Your task to perform on an android device: Clear the shopping cart on newegg.com. Image 0: 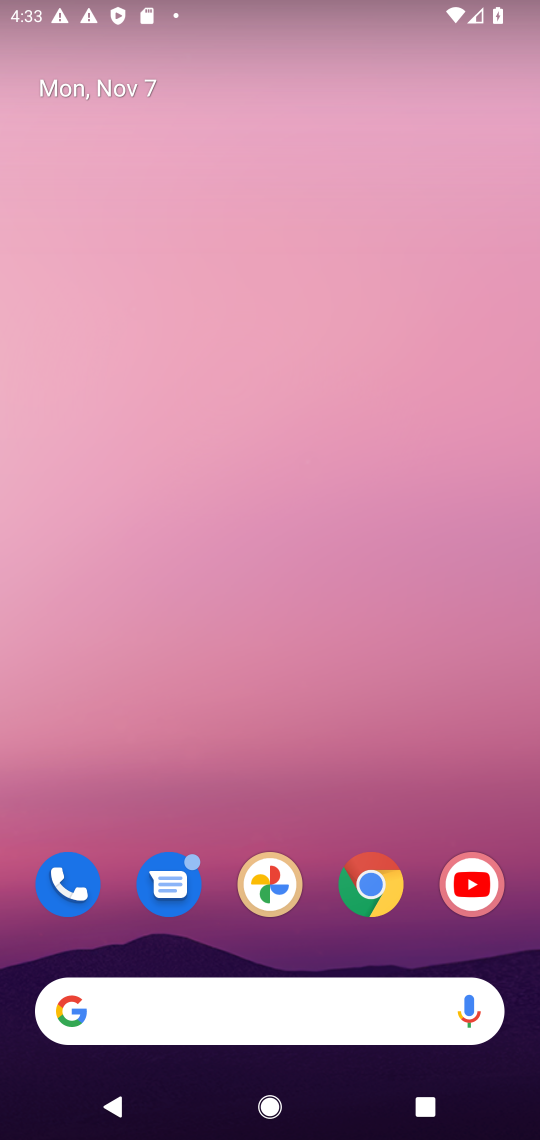
Step 0: drag from (320, 910) to (352, 167)
Your task to perform on an android device: Clear the shopping cart on newegg.com. Image 1: 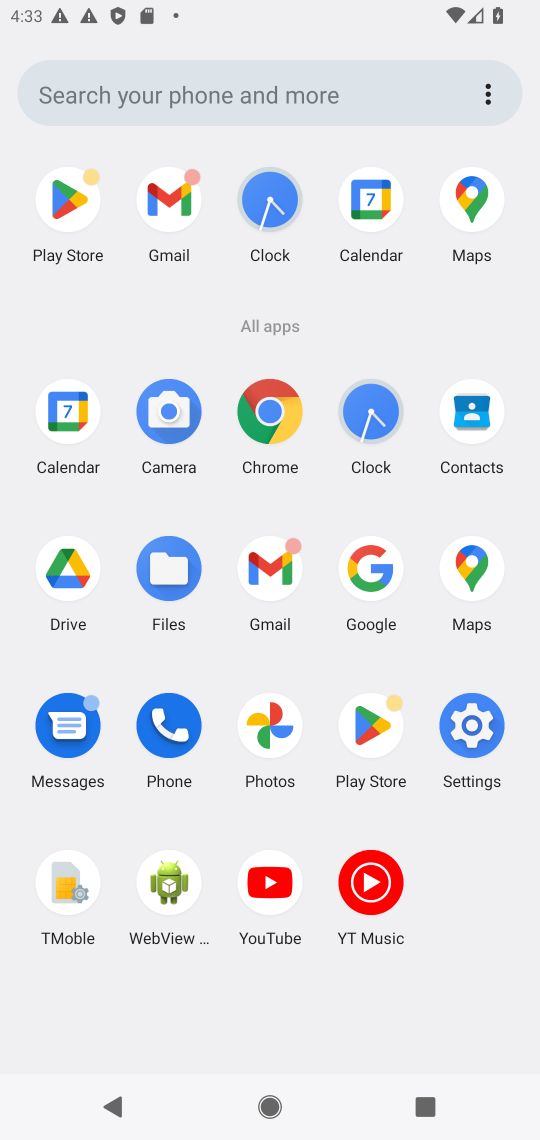
Step 1: click (267, 409)
Your task to perform on an android device: Clear the shopping cart on newegg.com. Image 2: 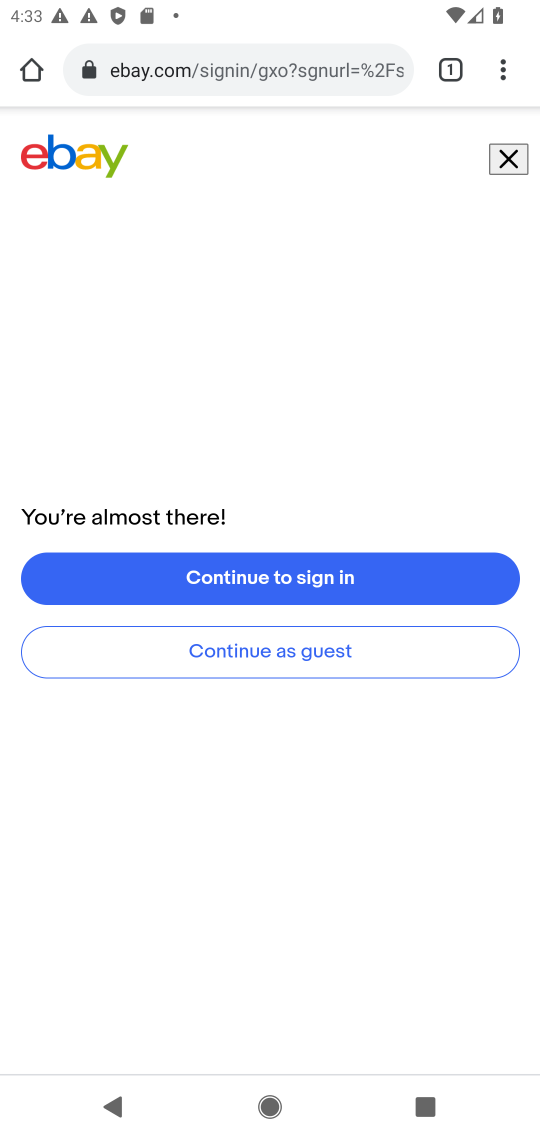
Step 2: click (274, 76)
Your task to perform on an android device: Clear the shopping cart on newegg.com. Image 3: 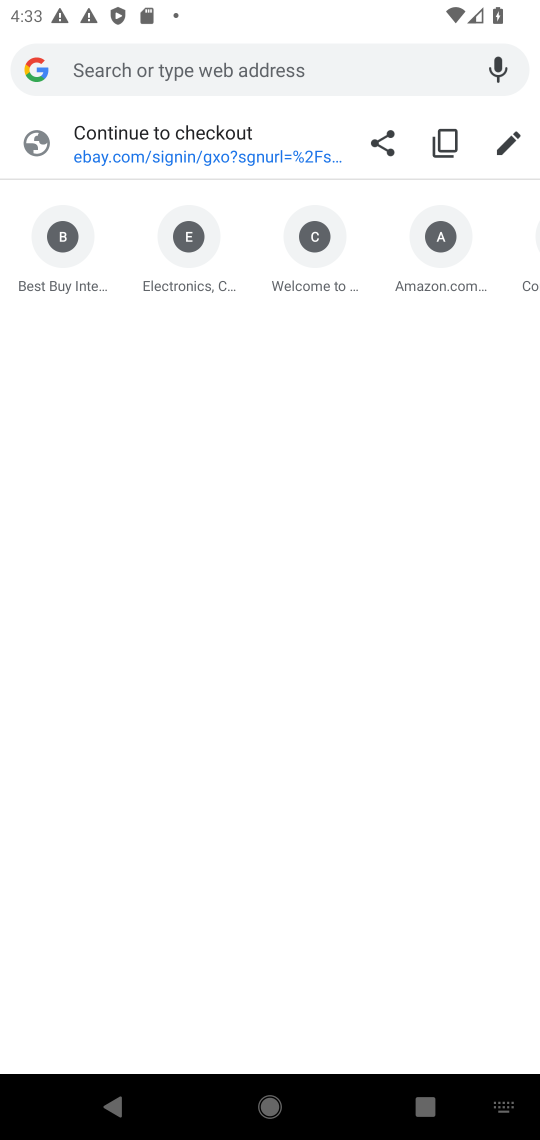
Step 3: type "newegg.com"
Your task to perform on an android device: Clear the shopping cart on newegg.com. Image 4: 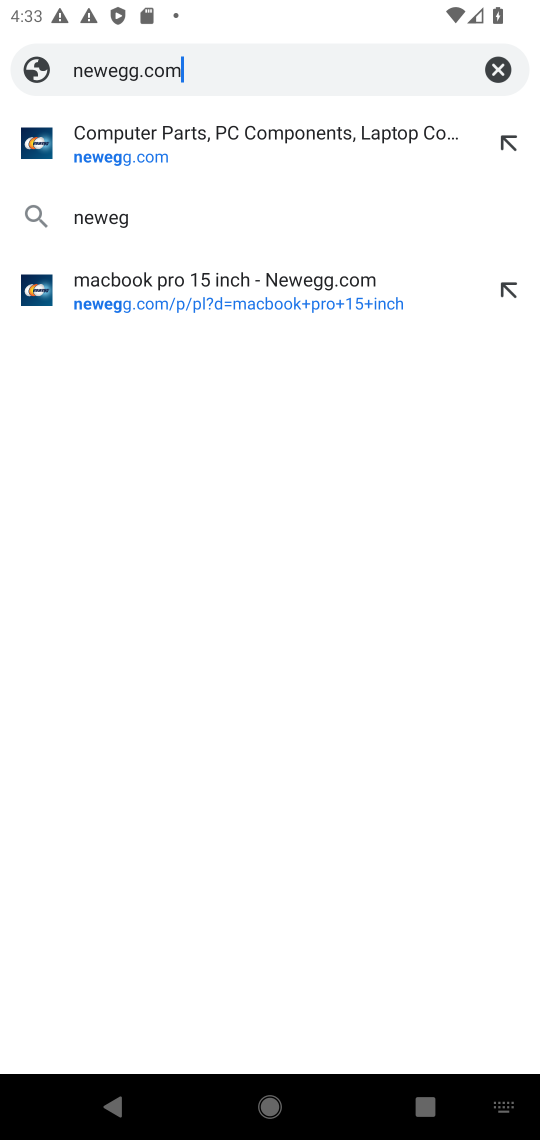
Step 4: press enter
Your task to perform on an android device: Clear the shopping cart on newegg.com. Image 5: 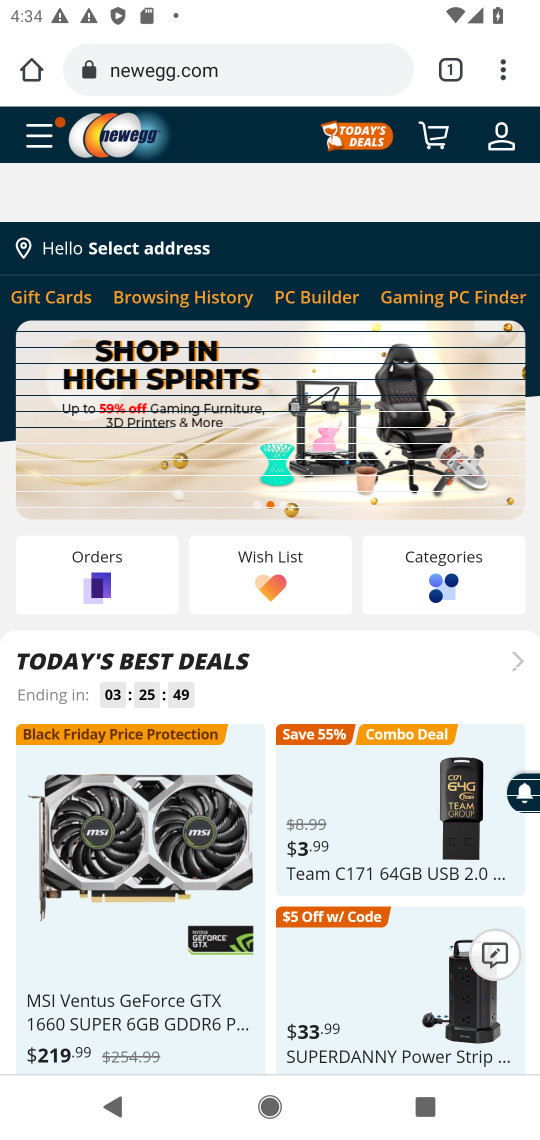
Step 5: click (434, 129)
Your task to perform on an android device: Clear the shopping cart on newegg.com. Image 6: 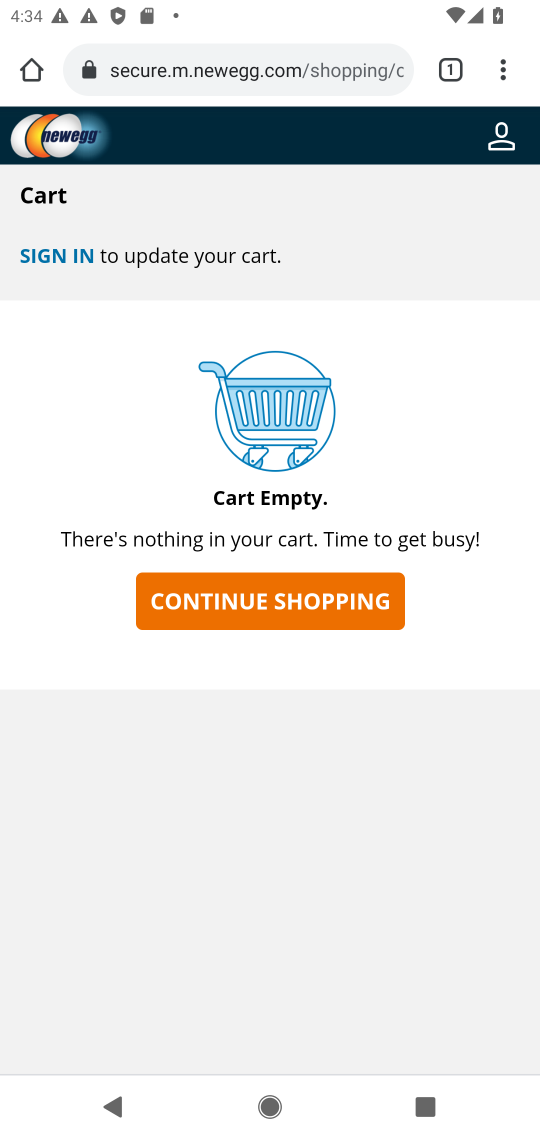
Step 6: task complete